Your task to perform on an android device: turn on sleep mode Image 0: 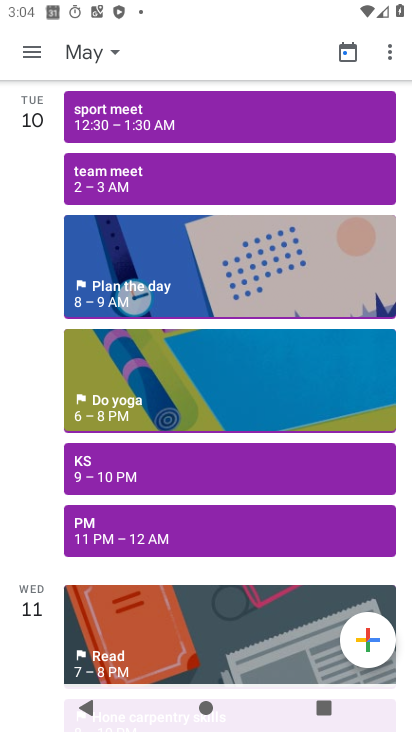
Step 0: press home button
Your task to perform on an android device: turn on sleep mode Image 1: 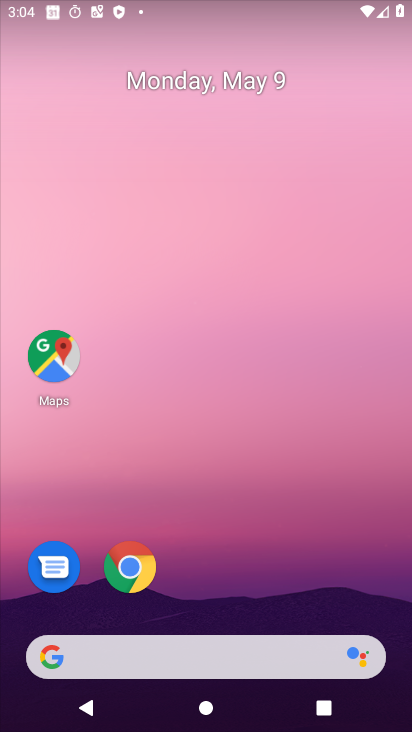
Step 1: drag from (213, 618) to (246, 52)
Your task to perform on an android device: turn on sleep mode Image 2: 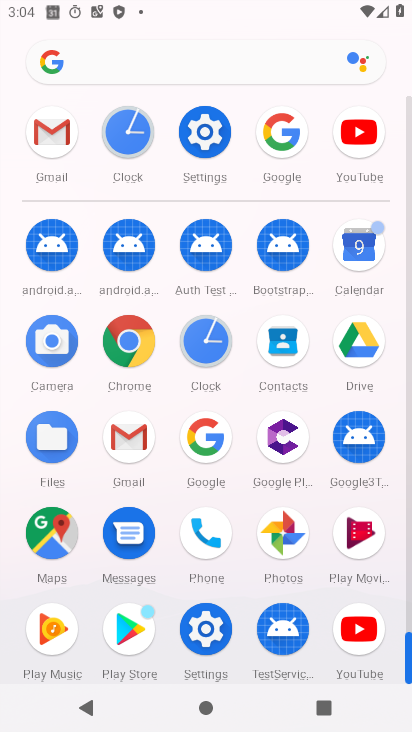
Step 2: click (213, 133)
Your task to perform on an android device: turn on sleep mode Image 3: 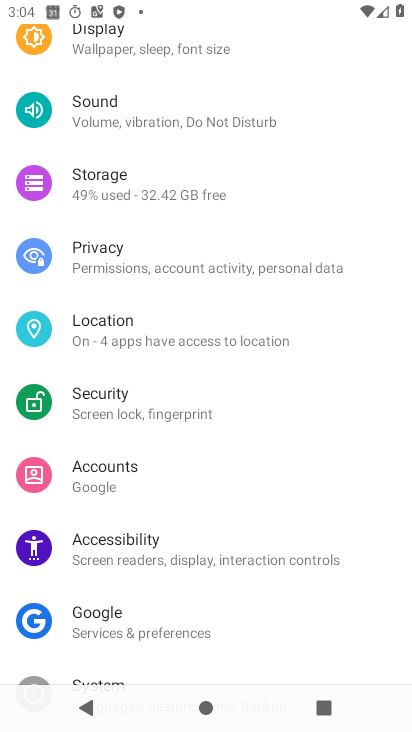
Step 3: click (173, 43)
Your task to perform on an android device: turn on sleep mode Image 4: 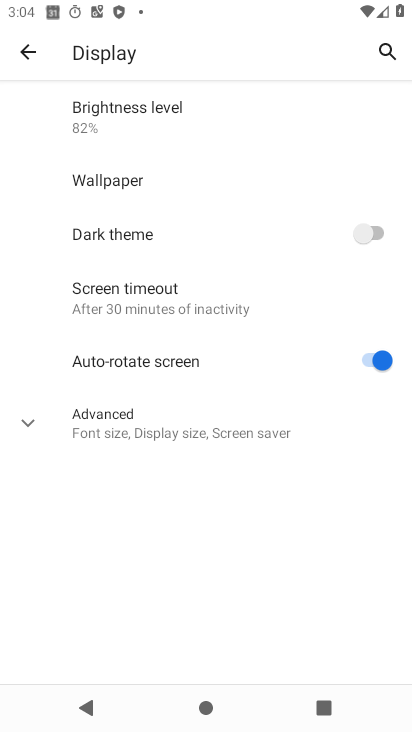
Step 4: click (222, 423)
Your task to perform on an android device: turn on sleep mode Image 5: 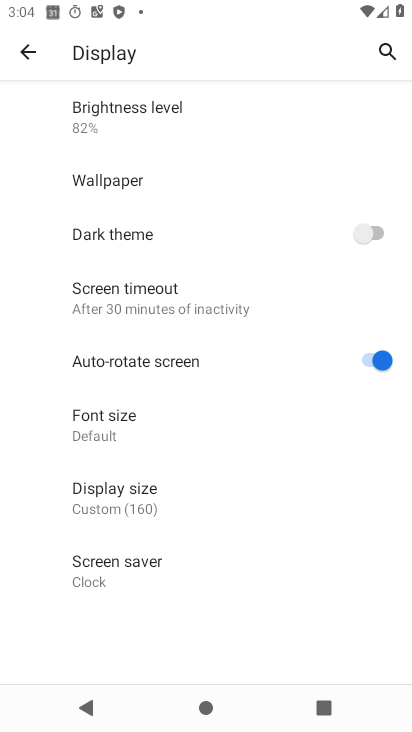
Step 5: task complete